Your task to perform on an android device: Open my contact list Image 0: 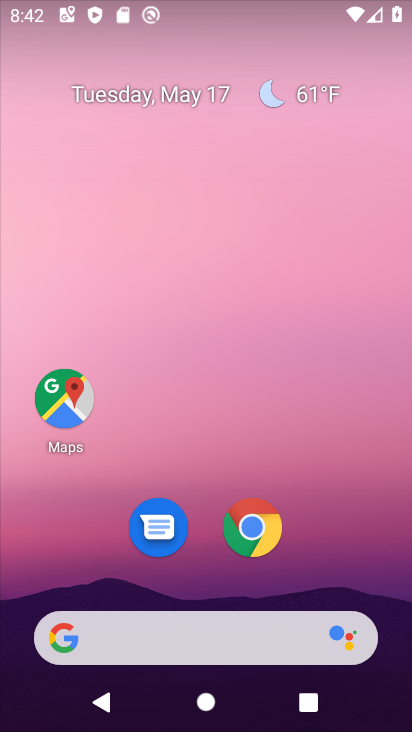
Step 0: drag from (222, 601) to (258, 25)
Your task to perform on an android device: Open my contact list Image 1: 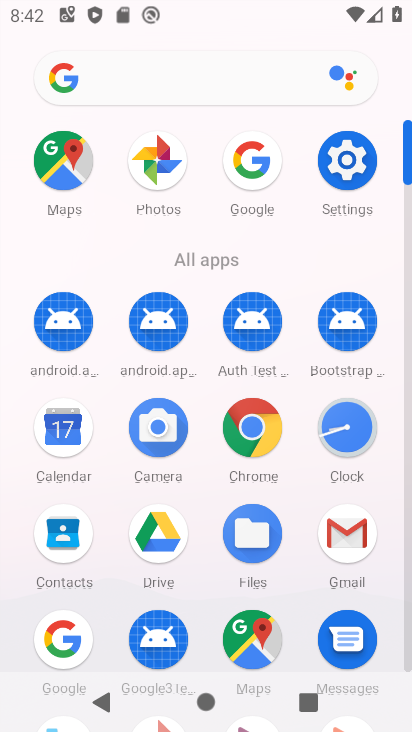
Step 1: drag from (201, 559) to (180, 133)
Your task to perform on an android device: Open my contact list Image 2: 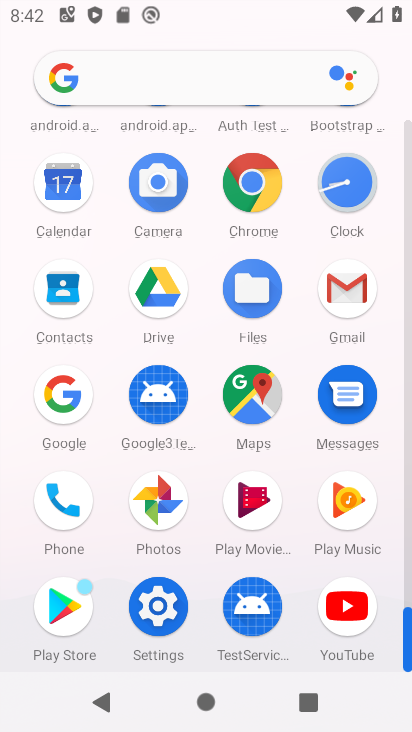
Step 2: click (36, 489)
Your task to perform on an android device: Open my contact list Image 3: 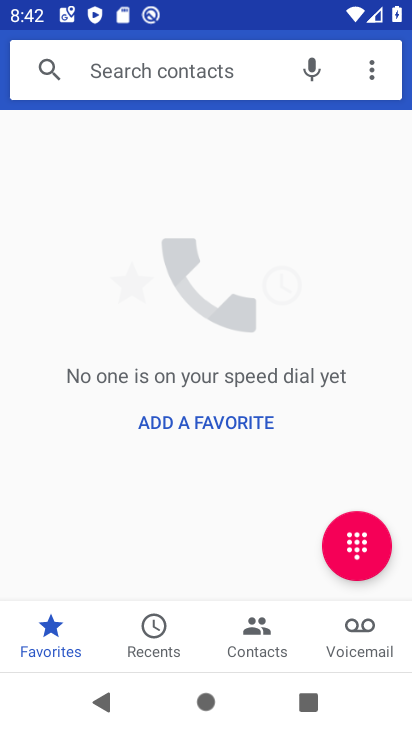
Step 3: click (267, 624)
Your task to perform on an android device: Open my contact list Image 4: 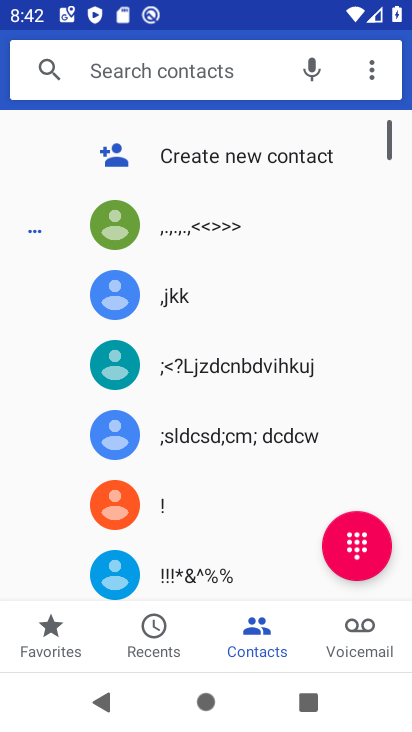
Step 4: task complete